Your task to perform on an android device: Go to sound settings Image 0: 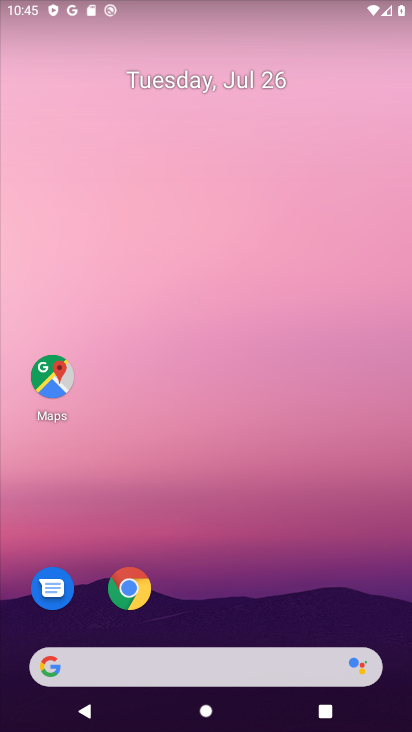
Step 0: press home button
Your task to perform on an android device: Go to sound settings Image 1: 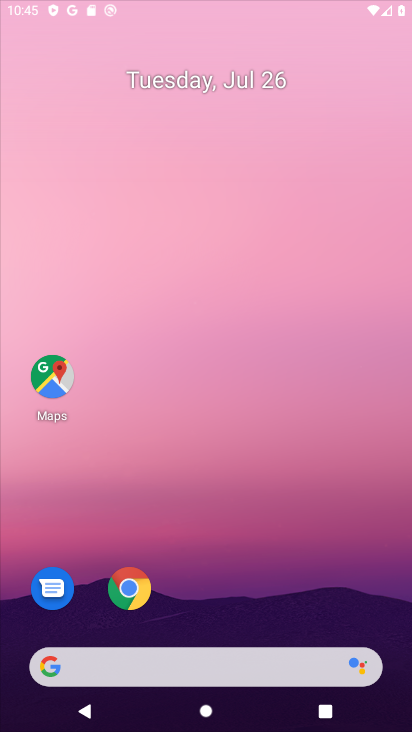
Step 1: drag from (207, 630) to (233, 3)
Your task to perform on an android device: Go to sound settings Image 2: 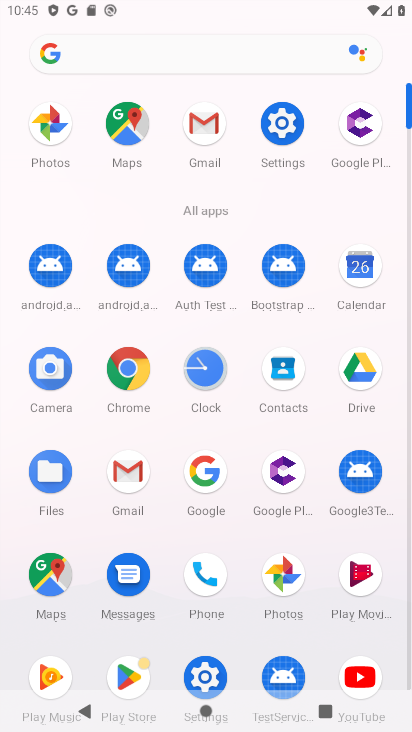
Step 2: click (283, 112)
Your task to perform on an android device: Go to sound settings Image 3: 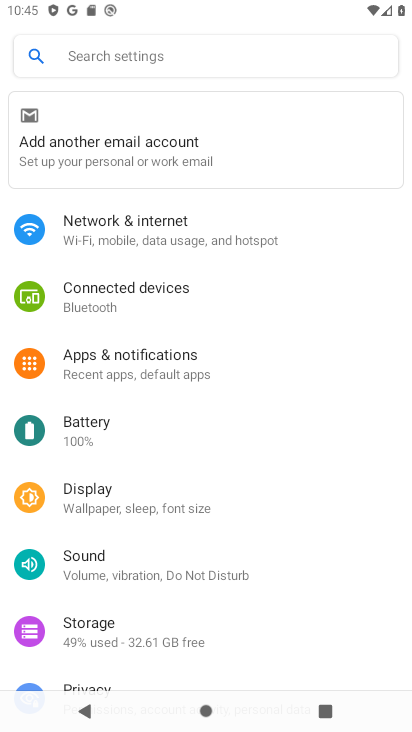
Step 3: click (116, 558)
Your task to perform on an android device: Go to sound settings Image 4: 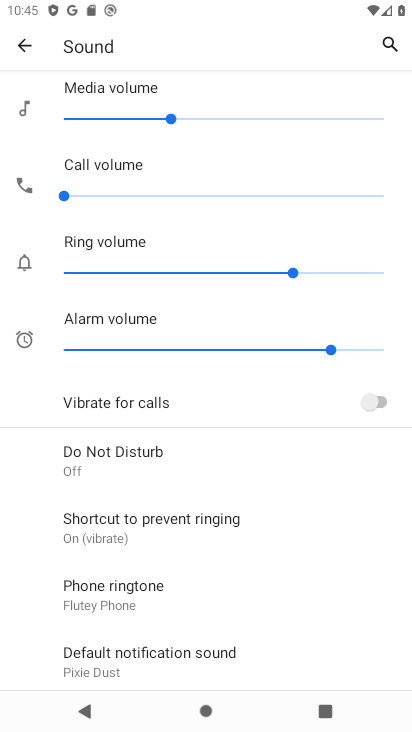
Step 4: task complete